Your task to perform on an android device: search for starred emails in the gmail app Image 0: 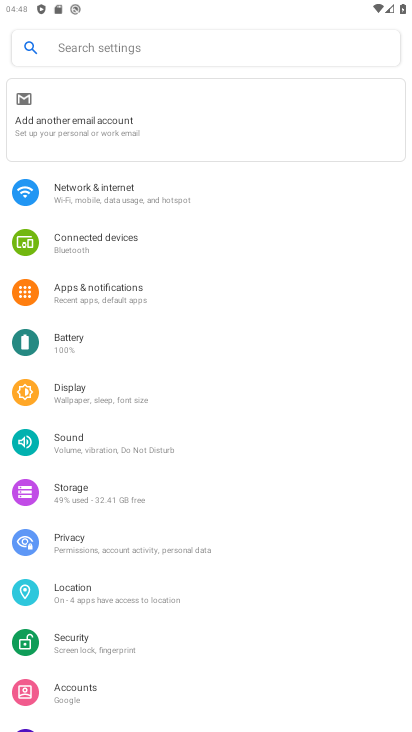
Step 0: press back button
Your task to perform on an android device: search for starred emails in the gmail app Image 1: 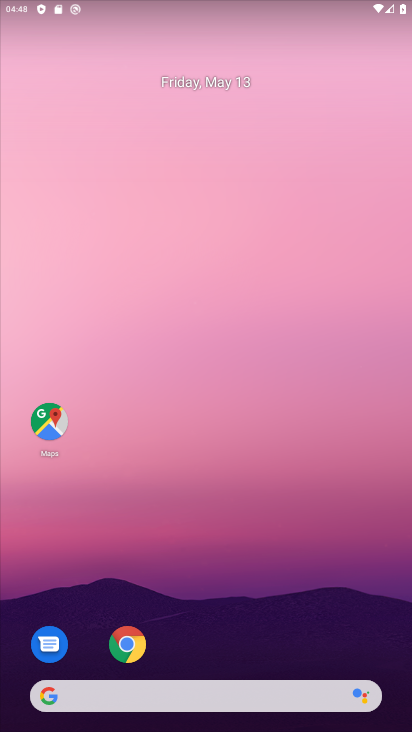
Step 1: drag from (205, 684) to (376, 16)
Your task to perform on an android device: search for starred emails in the gmail app Image 2: 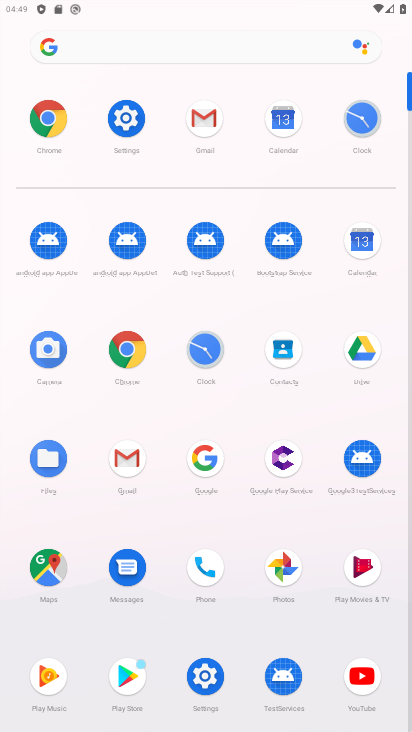
Step 2: click (206, 113)
Your task to perform on an android device: search for starred emails in the gmail app Image 3: 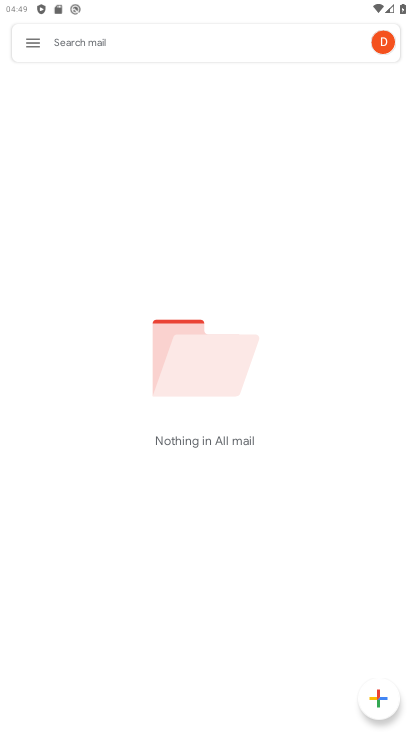
Step 3: click (33, 35)
Your task to perform on an android device: search for starred emails in the gmail app Image 4: 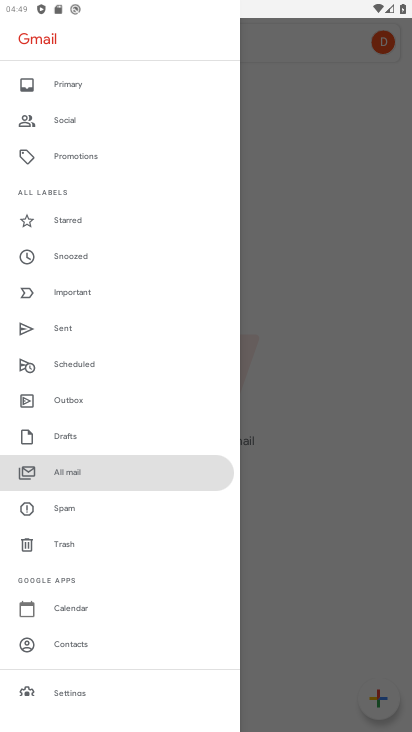
Step 4: click (77, 218)
Your task to perform on an android device: search for starred emails in the gmail app Image 5: 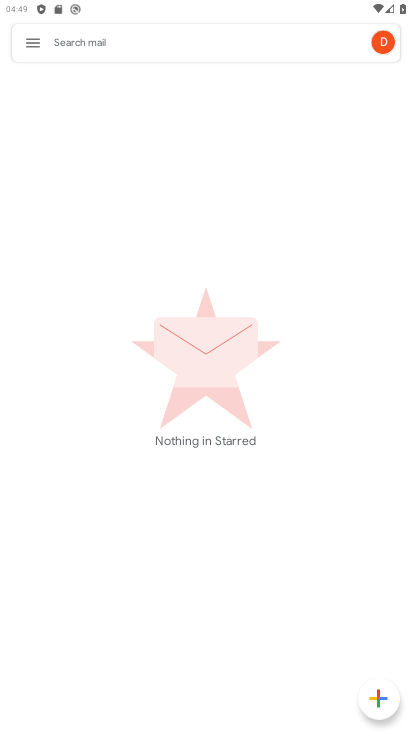
Step 5: task complete